Your task to perform on an android device: add a contact Image 0: 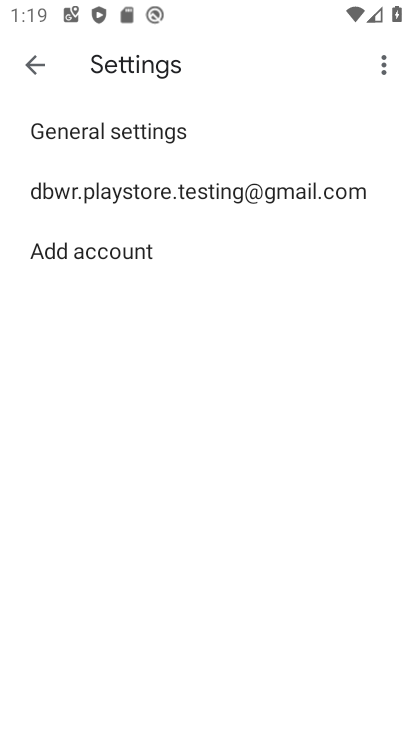
Step 0: press home button
Your task to perform on an android device: add a contact Image 1: 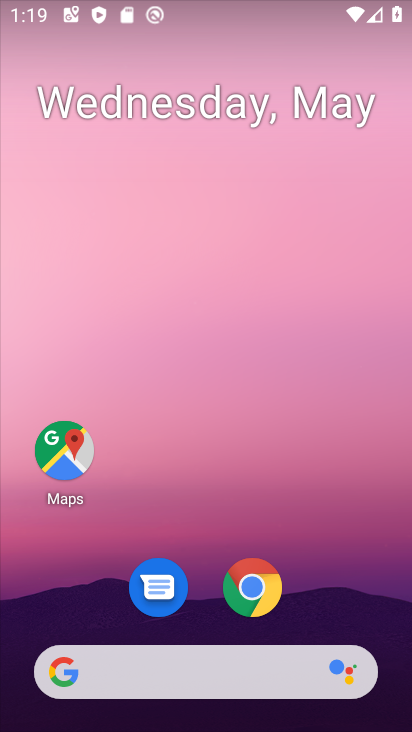
Step 1: drag from (288, 578) to (236, 107)
Your task to perform on an android device: add a contact Image 2: 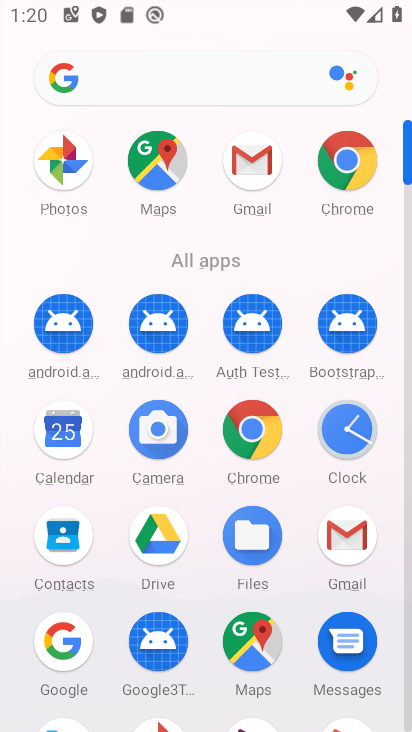
Step 2: click (83, 529)
Your task to perform on an android device: add a contact Image 3: 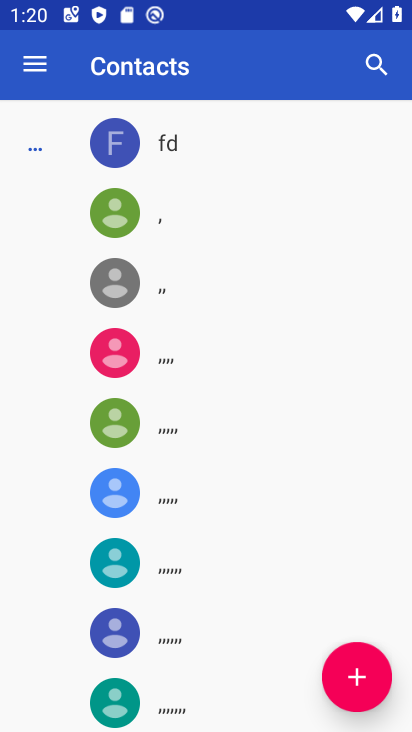
Step 3: click (359, 677)
Your task to perform on an android device: add a contact Image 4: 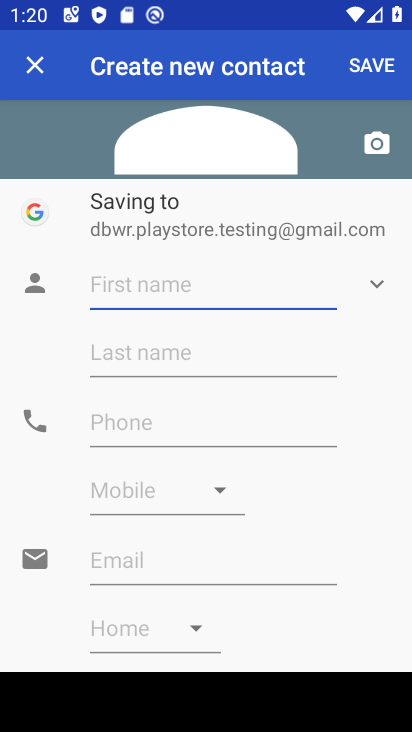
Step 4: type "nn"
Your task to perform on an android device: add a contact Image 5: 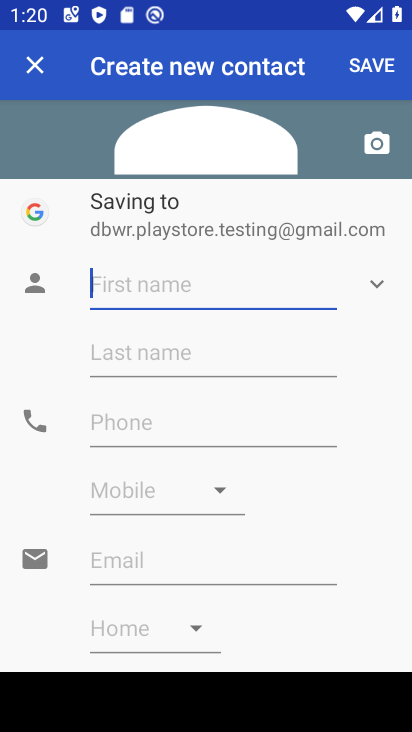
Step 5: click (151, 435)
Your task to perform on an android device: add a contact Image 6: 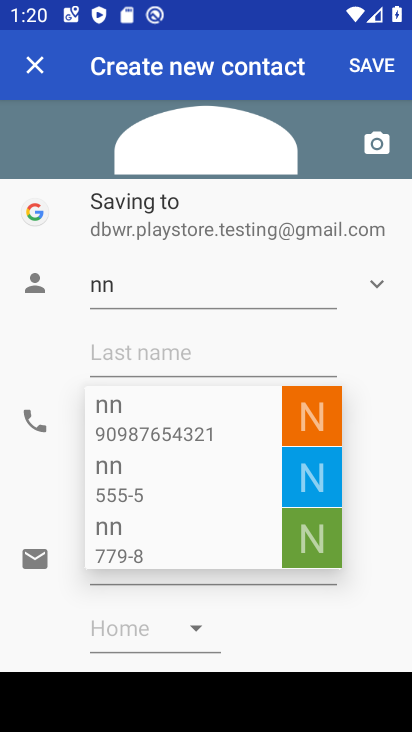
Step 6: type "i7989889"
Your task to perform on an android device: add a contact Image 7: 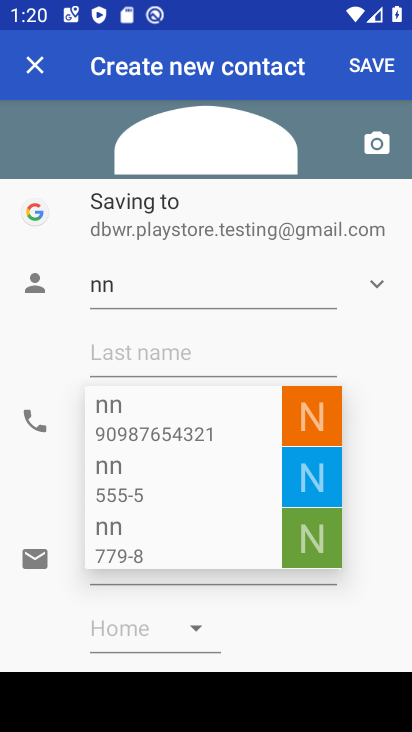
Step 7: click (211, 430)
Your task to perform on an android device: add a contact Image 8: 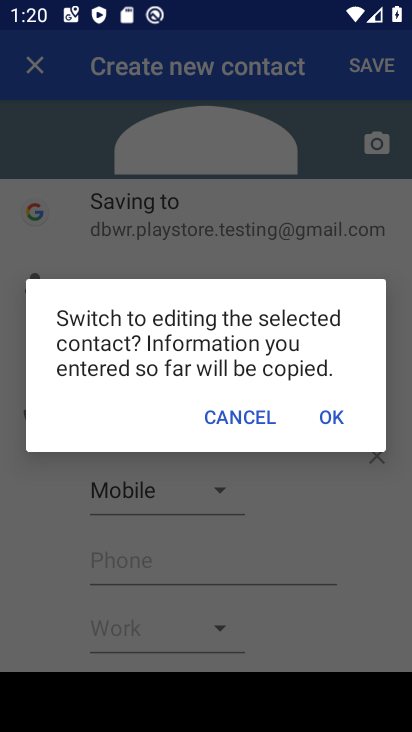
Step 8: click (348, 400)
Your task to perform on an android device: add a contact Image 9: 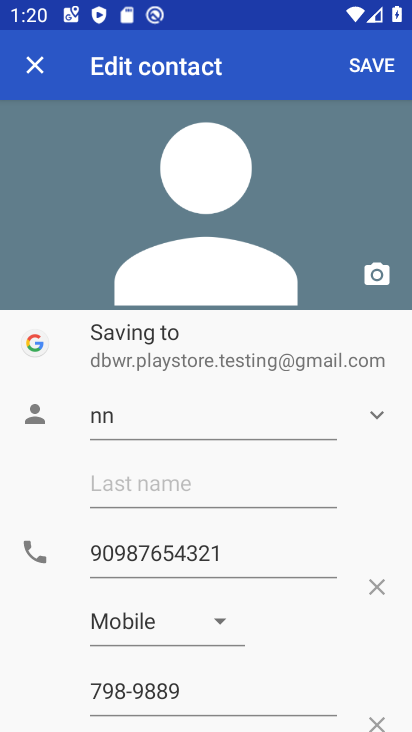
Step 9: click (367, 56)
Your task to perform on an android device: add a contact Image 10: 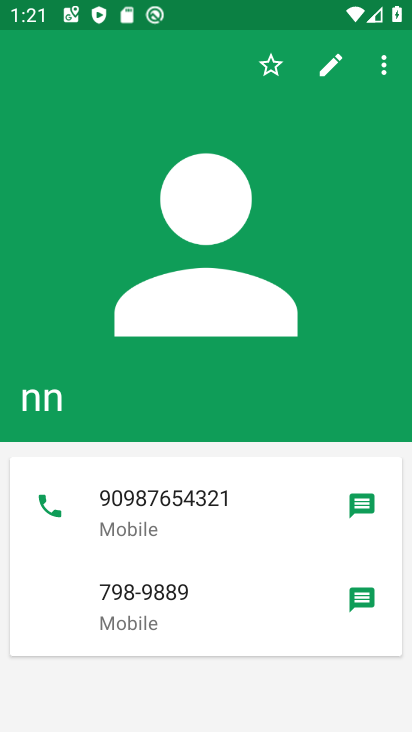
Step 10: task complete